Your task to perform on an android device: delete browsing data in the chrome app Image 0: 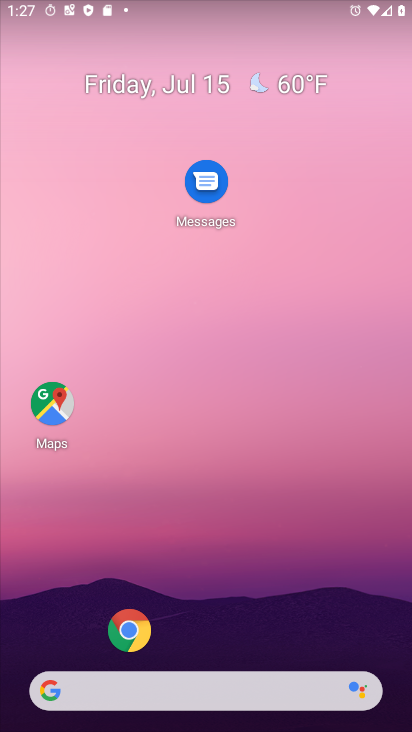
Step 0: click (127, 624)
Your task to perform on an android device: delete browsing data in the chrome app Image 1: 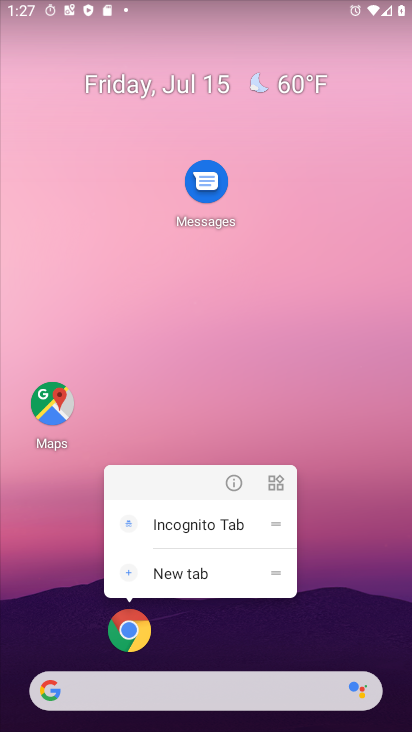
Step 1: click (131, 633)
Your task to perform on an android device: delete browsing data in the chrome app Image 2: 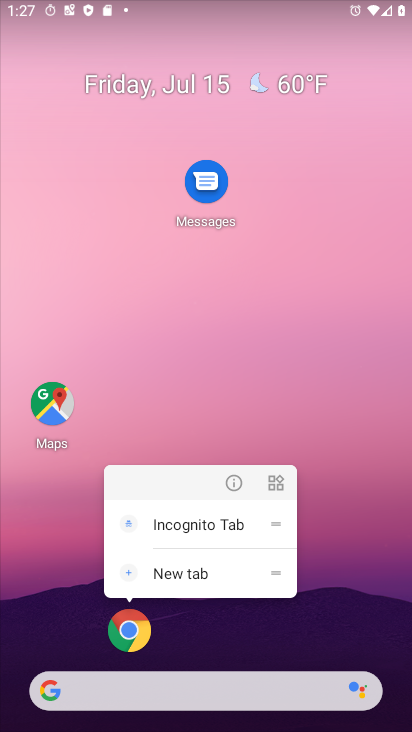
Step 2: task complete